Your task to perform on an android device: change the clock style Image 0: 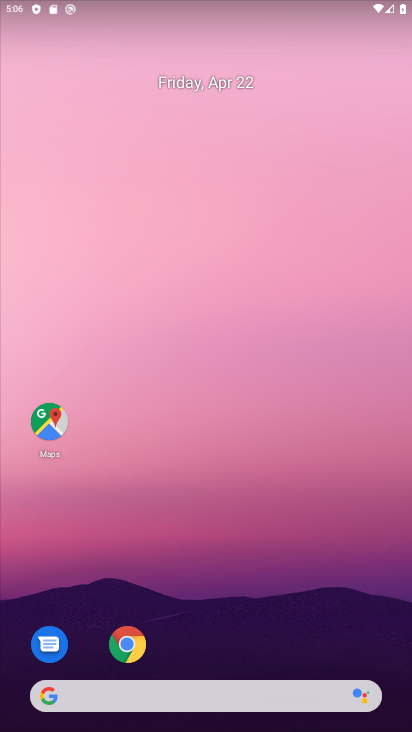
Step 0: click (139, 651)
Your task to perform on an android device: change the clock style Image 1: 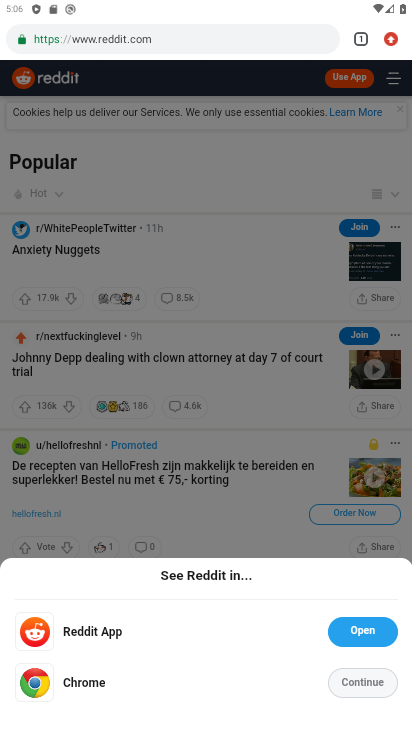
Step 1: press home button
Your task to perform on an android device: change the clock style Image 2: 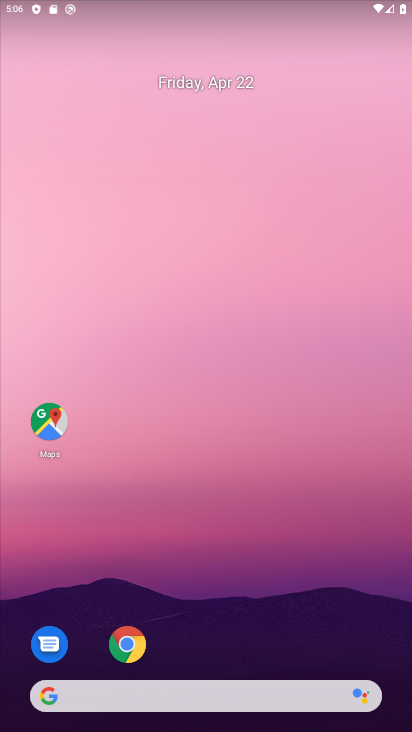
Step 2: drag from (205, 528) to (280, 22)
Your task to perform on an android device: change the clock style Image 3: 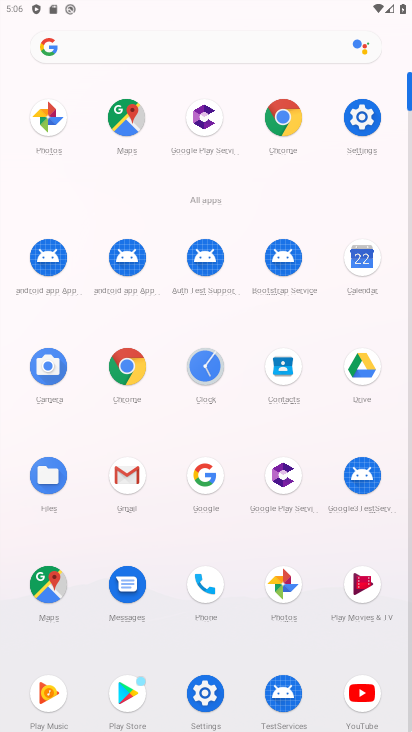
Step 3: click (210, 367)
Your task to perform on an android device: change the clock style Image 4: 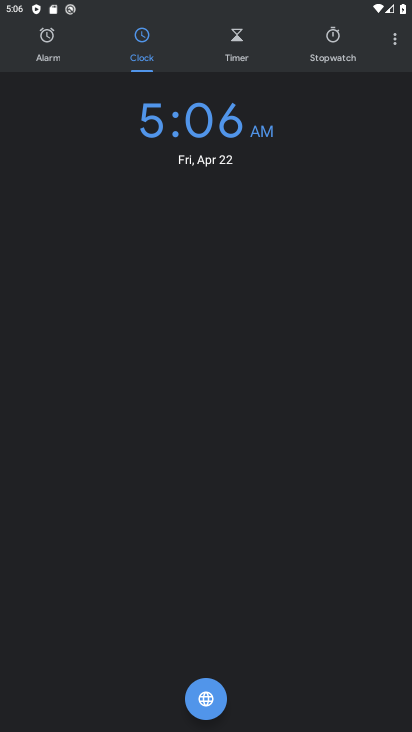
Step 4: click (392, 54)
Your task to perform on an android device: change the clock style Image 5: 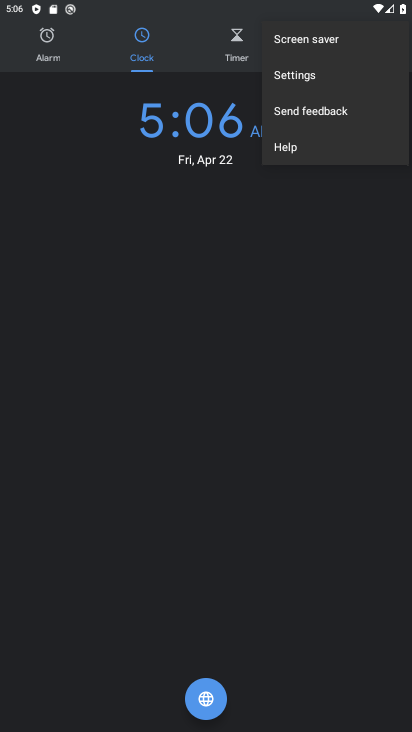
Step 5: click (305, 81)
Your task to perform on an android device: change the clock style Image 6: 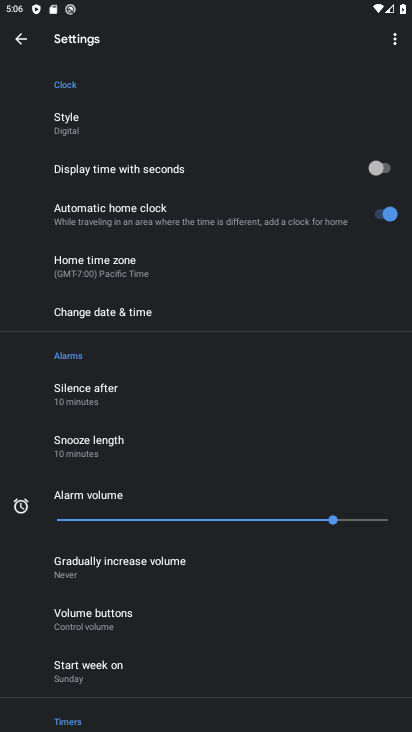
Step 6: click (57, 117)
Your task to perform on an android device: change the clock style Image 7: 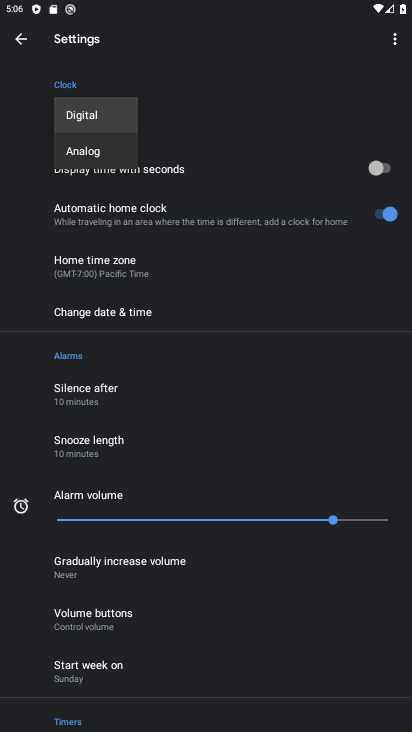
Step 7: click (112, 151)
Your task to perform on an android device: change the clock style Image 8: 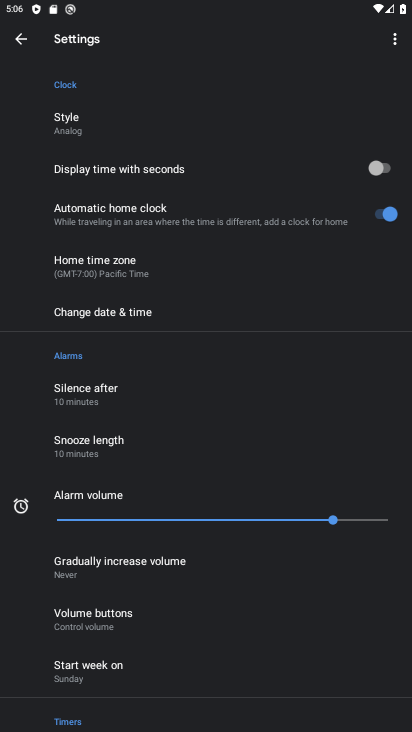
Step 8: task complete